Your task to perform on an android device: change the clock display to show seconds Image 0: 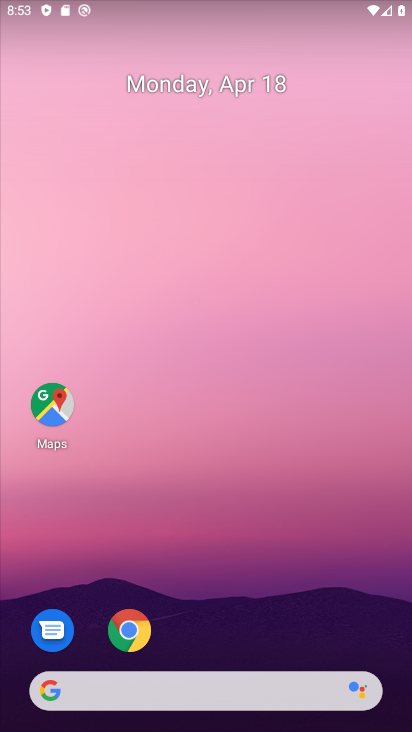
Step 0: drag from (314, 314) to (323, 56)
Your task to perform on an android device: change the clock display to show seconds Image 1: 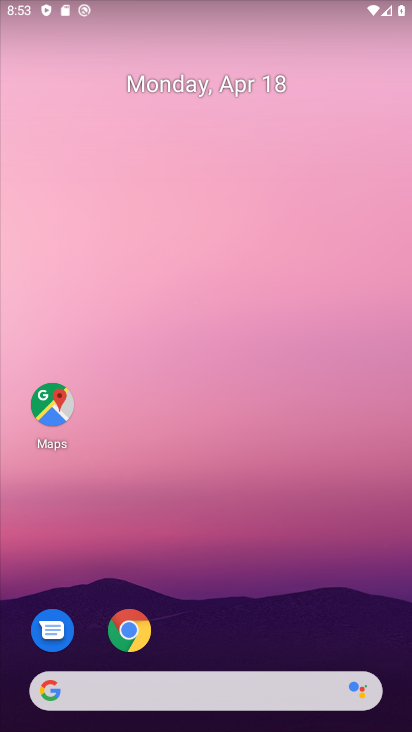
Step 1: drag from (202, 558) to (266, 84)
Your task to perform on an android device: change the clock display to show seconds Image 2: 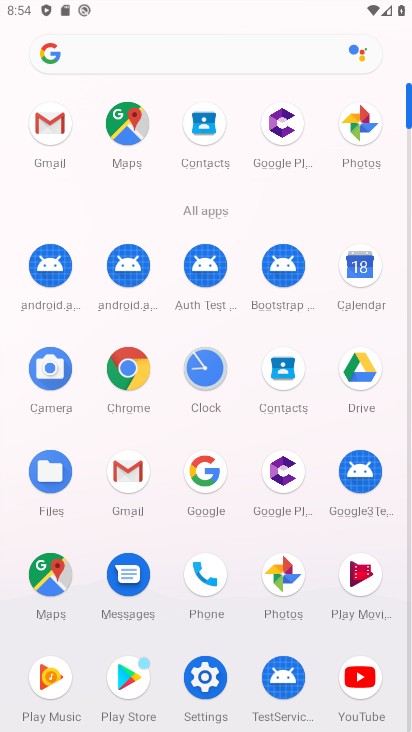
Step 2: click (200, 371)
Your task to perform on an android device: change the clock display to show seconds Image 3: 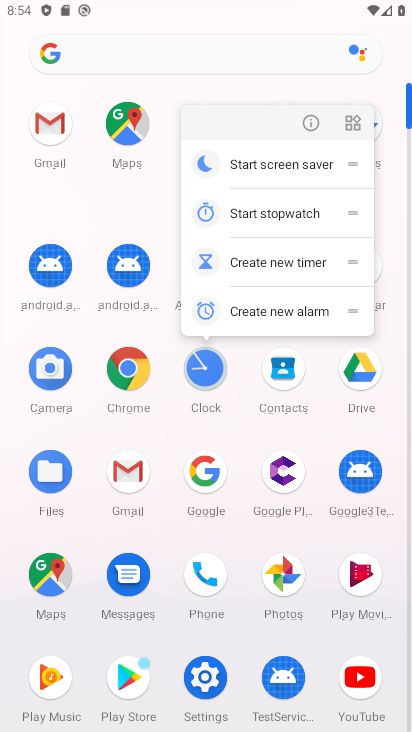
Step 3: click (201, 367)
Your task to perform on an android device: change the clock display to show seconds Image 4: 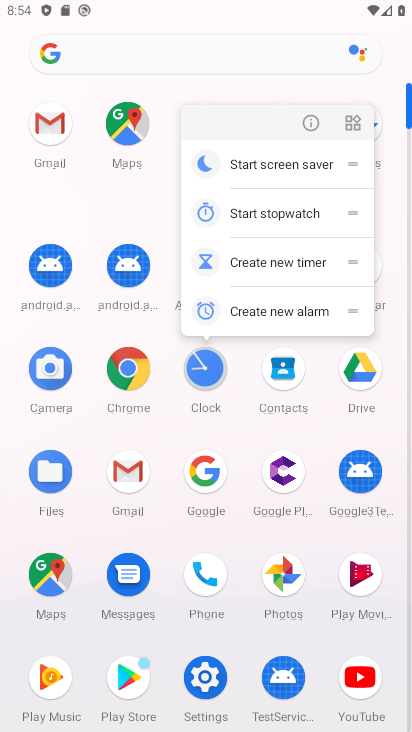
Step 4: click (201, 366)
Your task to perform on an android device: change the clock display to show seconds Image 5: 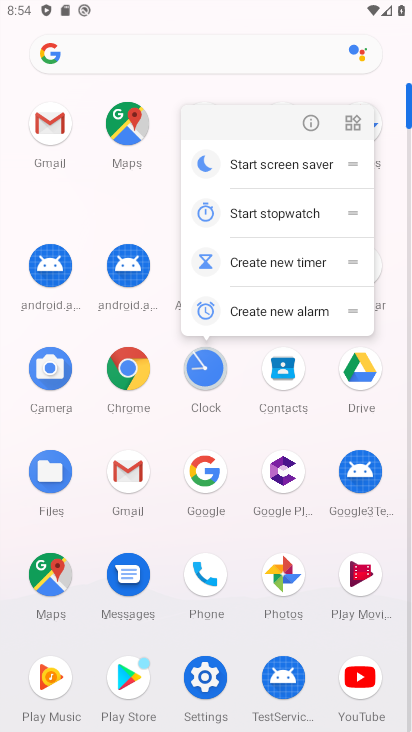
Step 5: click (201, 363)
Your task to perform on an android device: change the clock display to show seconds Image 6: 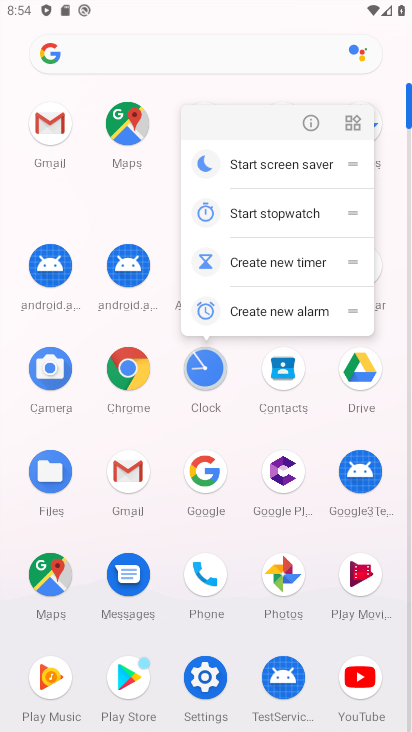
Step 6: click (204, 363)
Your task to perform on an android device: change the clock display to show seconds Image 7: 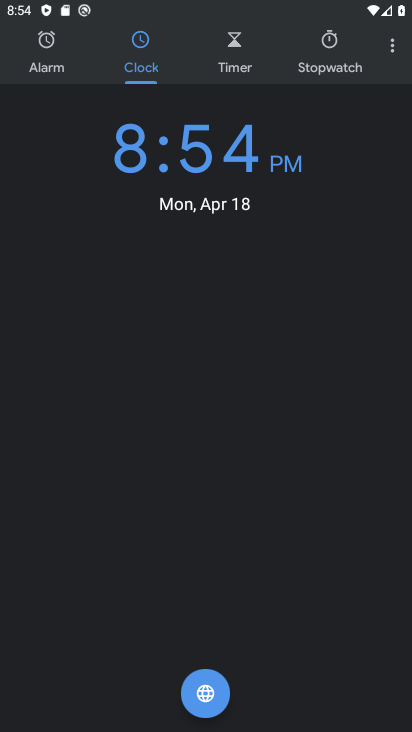
Step 7: click (394, 45)
Your task to perform on an android device: change the clock display to show seconds Image 8: 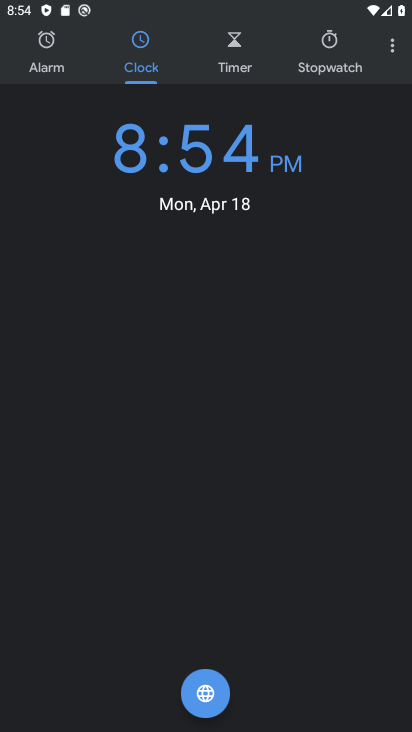
Step 8: click (394, 45)
Your task to perform on an android device: change the clock display to show seconds Image 9: 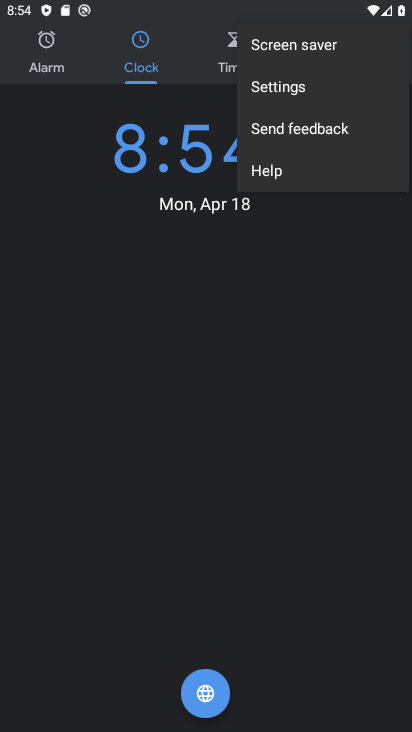
Step 9: click (344, 93)
Your task to perform on an android device: change the clock display to show seconds Image 10: 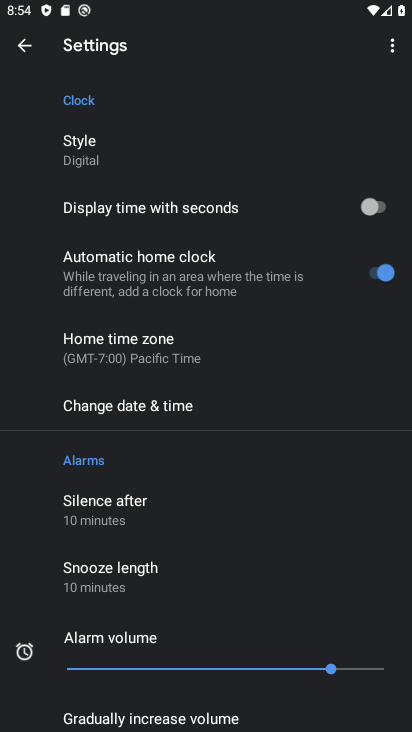
Step 10: click (378, 210)
Your task to perform on an android device: change the clock display to show seconds Image 11: 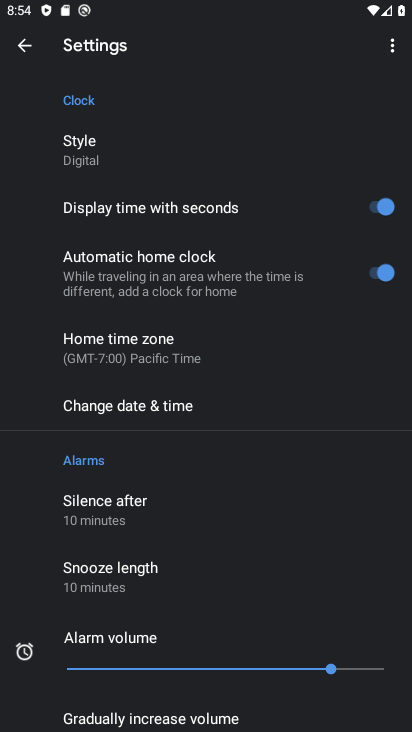
Step 11: task complete